Your task to perform on an android device: open a new tab in the chrome app Image 0: 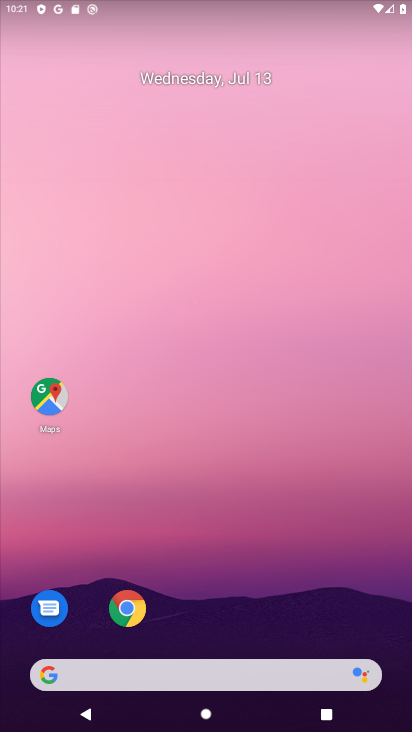
Step 0: click (126, 613)
Your task to perform on an android device: open a new tab in the chrome app Image 1: 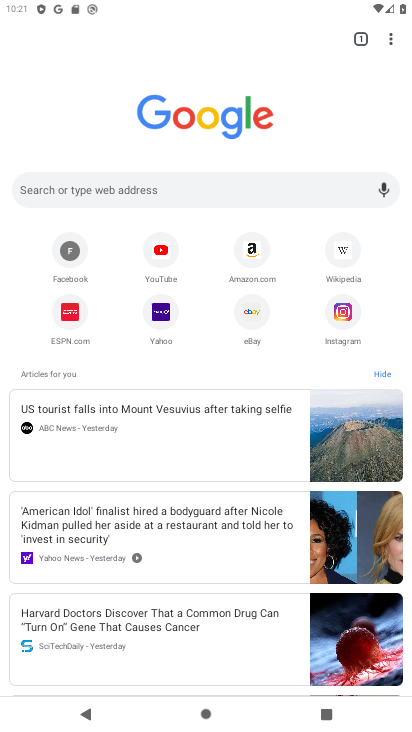
Step 1: click (394, 42)
Your task to perform on an android device: open a new tab in the chrome app Image 2: 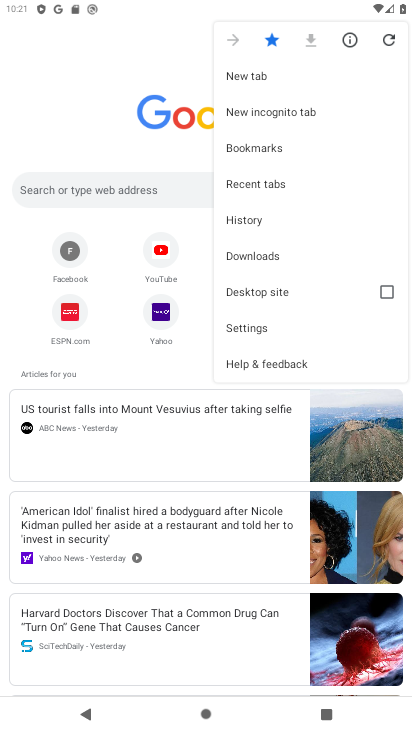
Step 2: click (266, 78)
Your task to perform on an android device: open a new tab in the chrome app Image 3: 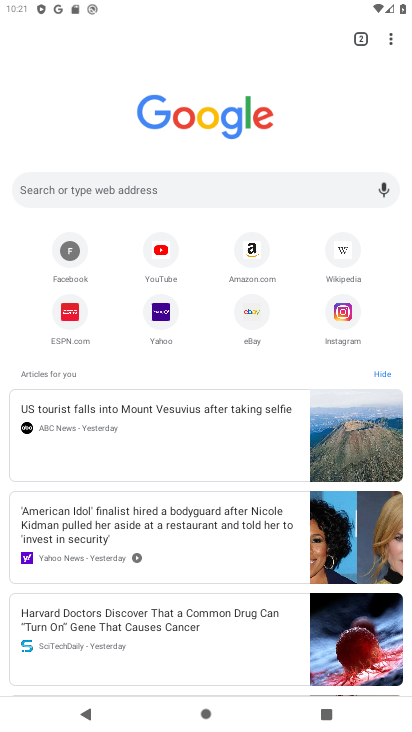
Step 3: task complete